Your task to perform on an android device: Go to privacy settings Image 0: 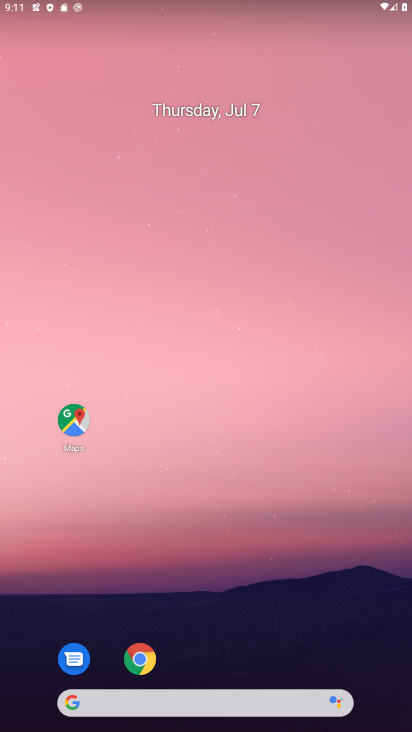
Step 0: drag from (196, 654) to (231, 231)
Your task to perform on an android device: Go to privacy settings Image 1: 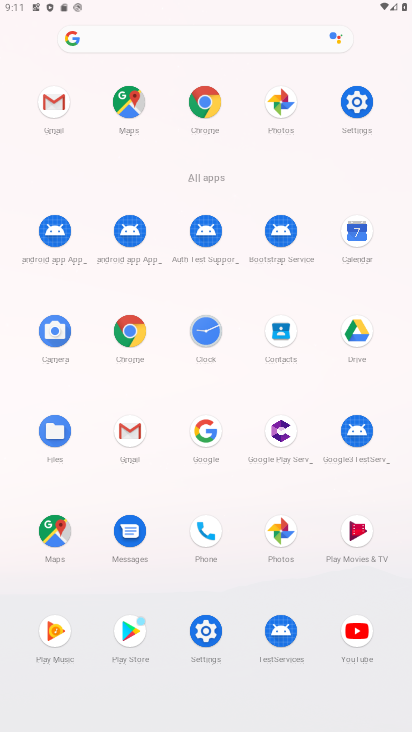
Step 1: click (199, 631)
Your task to perform on an android device: Go to privacy settings Image 2: 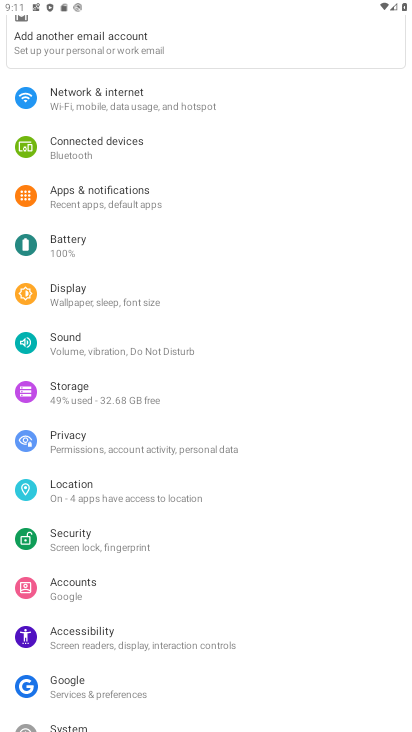
Step 2: click (91, 449)
Your task to perform on an android device: Go to privacy settings Image 3: 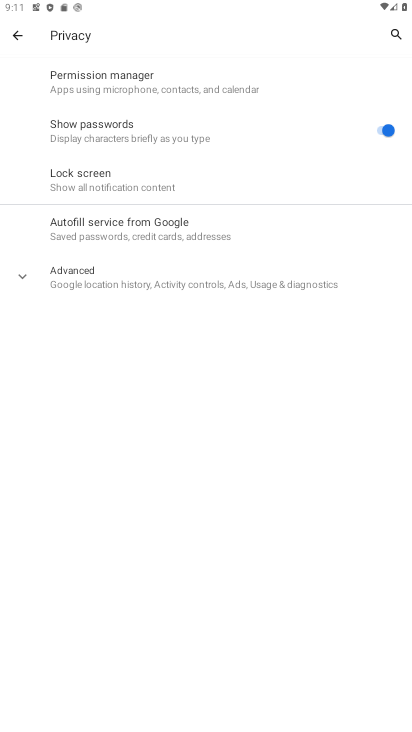
Step 3: task complete